Your task to perform on an android device: Open Youtube and go to "Your channel" Image 0: 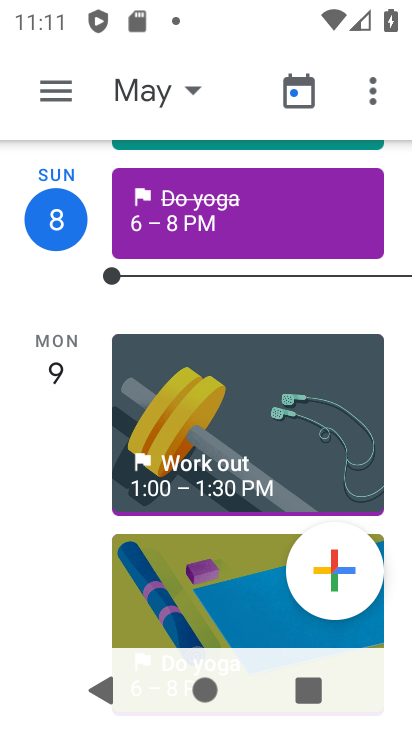
Step 0: press home button
Your task to perform on an android device: Open Youtube and go to "Your channel" Image 1: 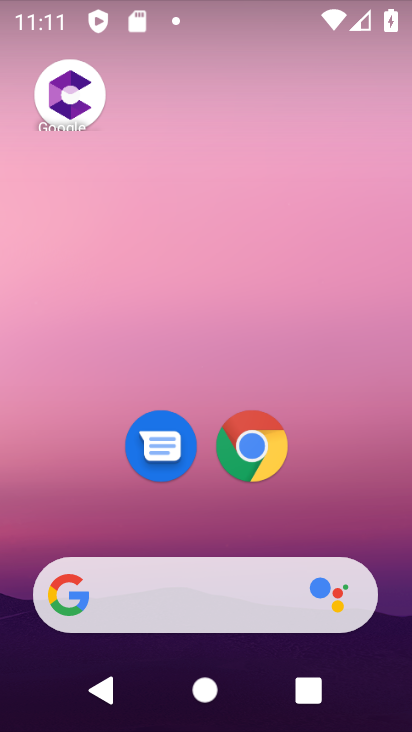
Step 1: drag from (322, 543) to (275, 0)
Your task to perform on an android device: Open Youtube and go to "Your channel" Image 2: 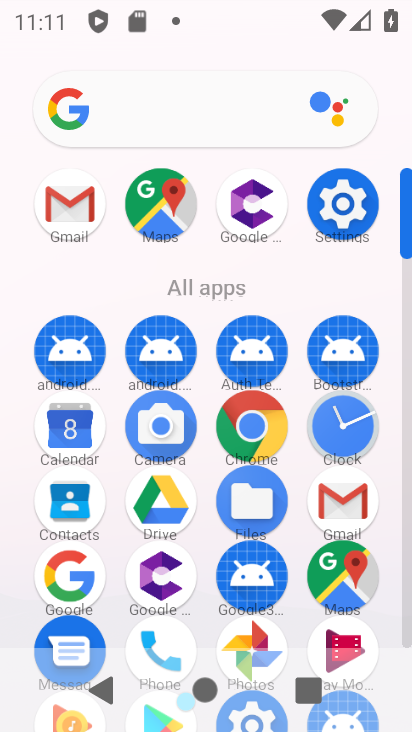
Step 2: drag from (295, 631) to (194, 341)
Your task to perform on an android device: Open Youtube and go to "Your channel" Image 3: 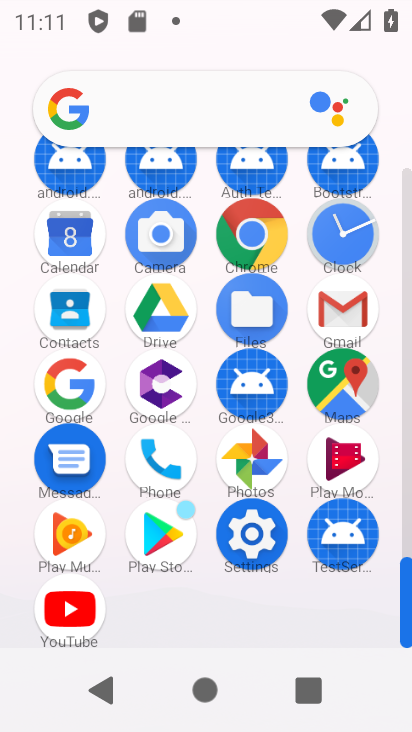
Step 3: click (49, 625)
Your task to perform on an android device: Open Youtube and go to "Your channel" Image 4: 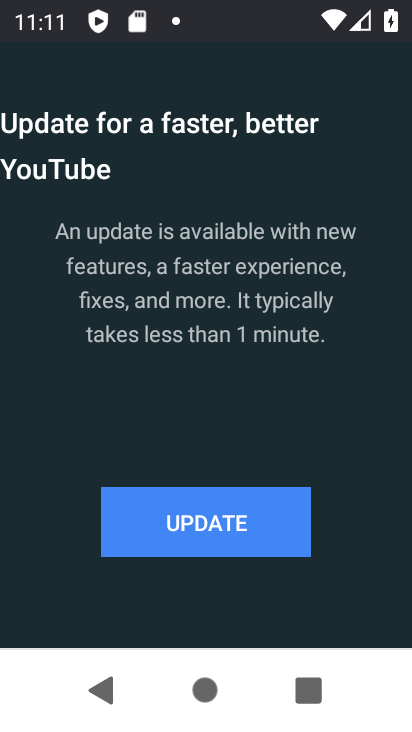
Step 4: click (232, 507)
Your task to perform on an android device: Open Youtube and go to "Your channel" Image 5: 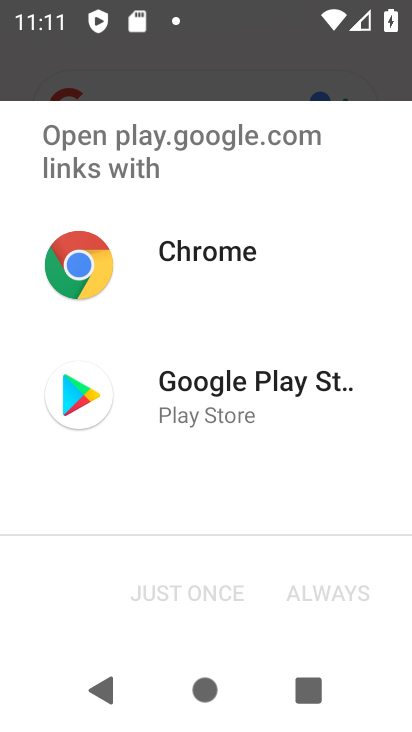
Step 5: click (196, 402)
Your task to perform on an android device: Open Youtube and go to "Your channel" Image 6: 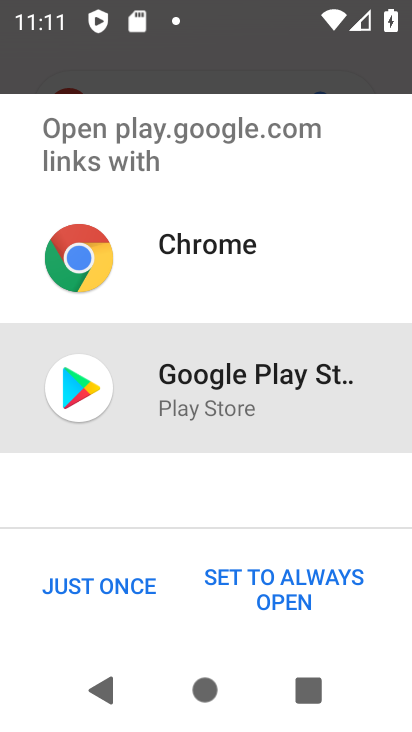
Step 6: click (103, 592)
Your task to perform on an android device: Open Youtube and go to "Your channel" Image 7: 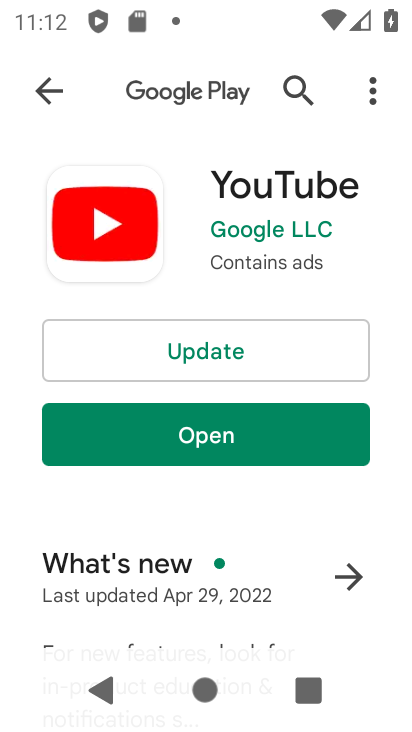
Step 7: click (269, 330)
Your task to perform on an android device: Open Youtube and go to "Your channel" Image 8: 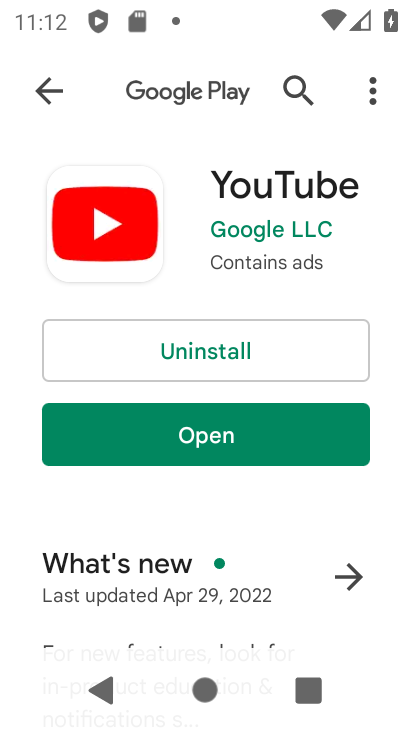
Step 8: click (220, 430)
Your task to perform on an android device: Open Youtube and go to "Your channel" Image 9: 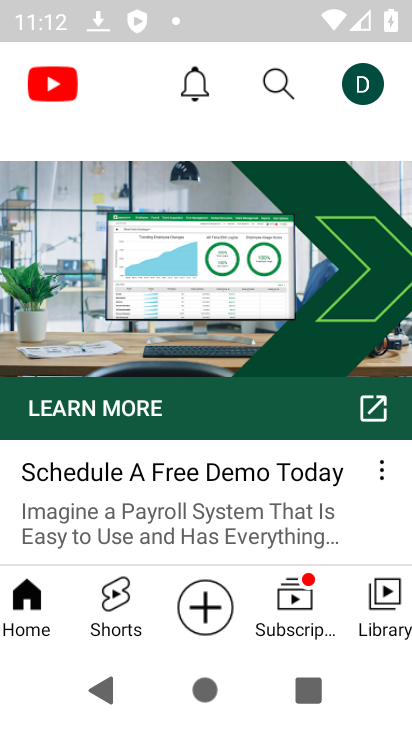
Step 9: click (382, 76)
Your task to perform on an android device: Open Youtube and go to "Your channel" Image 10: 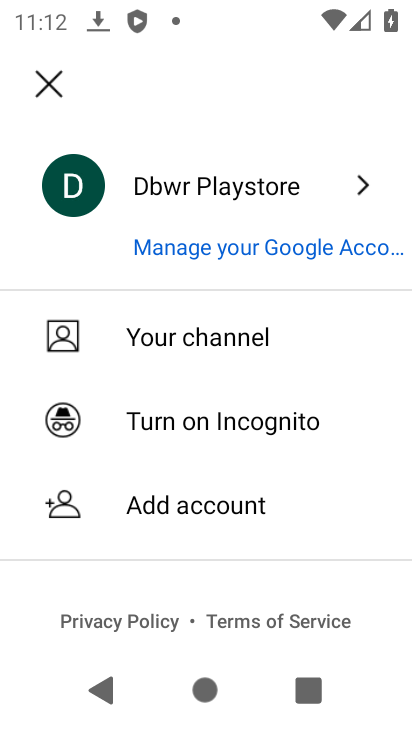
Step 10: click (129, 331)
Your task to perform on an android device: Open Youtube and go to "Your channel" Image 11: 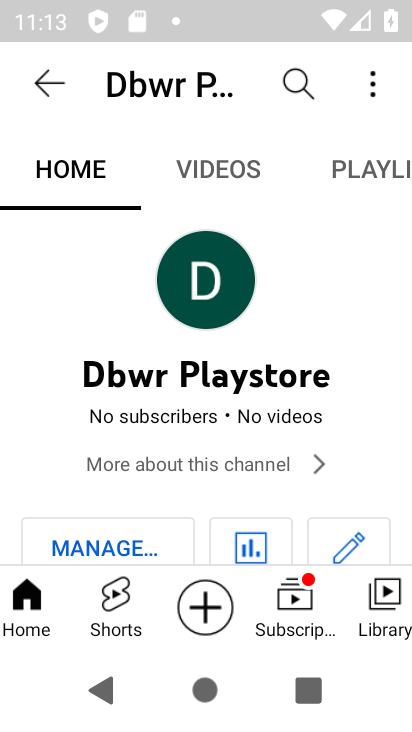
Step 11: task complete